Your task to perform on an android device: Open display settings Image 0: 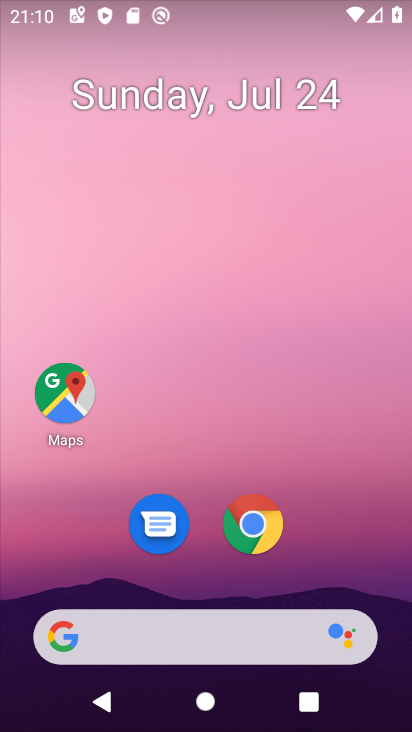
Step 0: drag from (233, 622) to (341, 38)
Your task to perform on an android device: Open display settings Image 1: 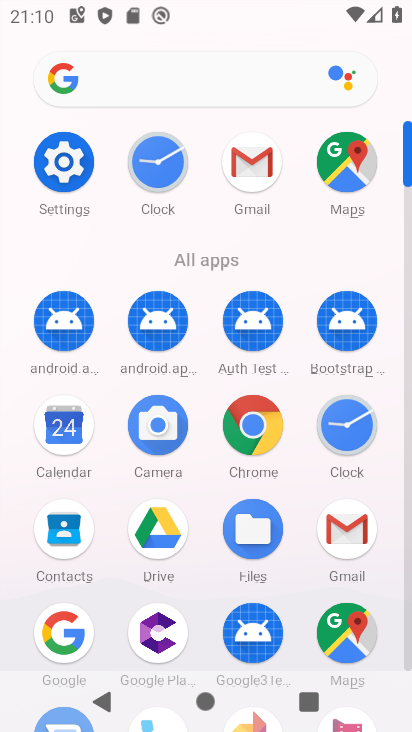
Step 1: click (78, 158)
Your task to perform on an android device: Open display settings Image 2: 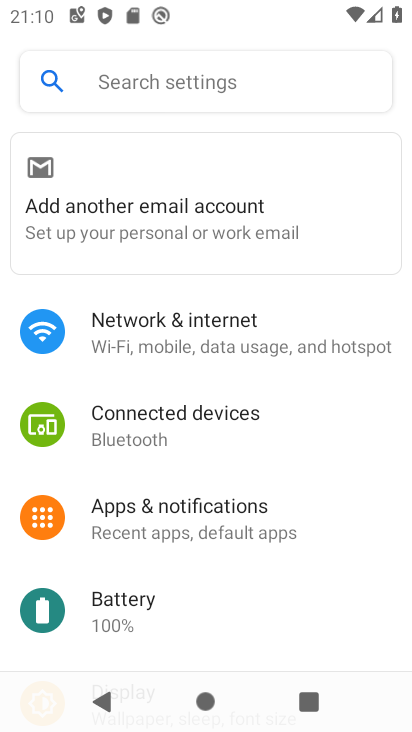
Step 2: drag from (236, 608) to (341, 233)
Your task to perform on an android device: Open display settings Image 3: 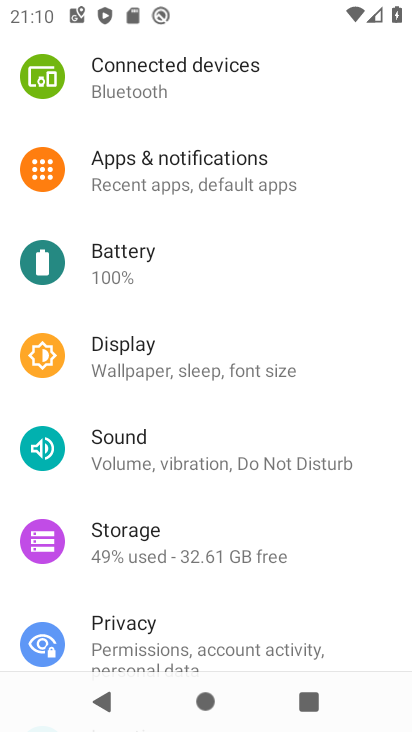
Step 3: click (132, 369)
Your task to perform on an android device: Open display settings Image 4: 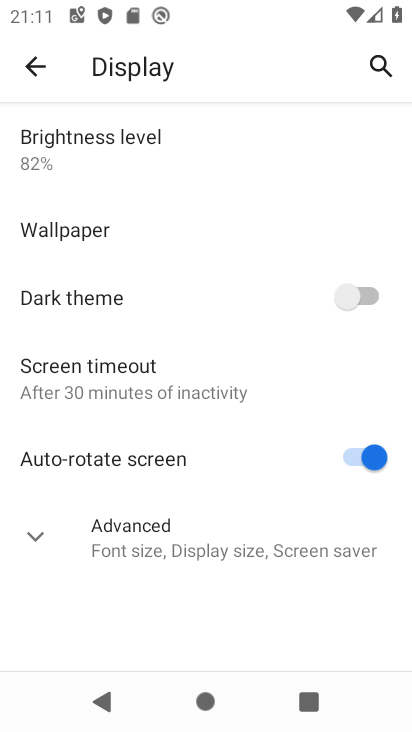
Step 4: task complete